Your task to perform on an android device: turn on sleep mode Image 0: 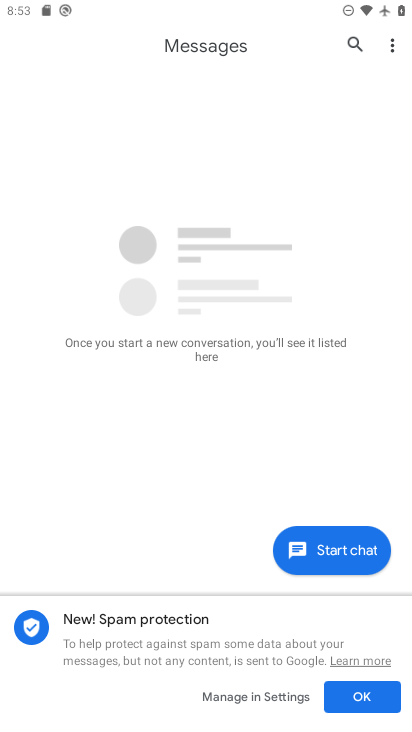
Step 0: press home button
Your task to perform on an android device: turn on sleep mode Image 1: 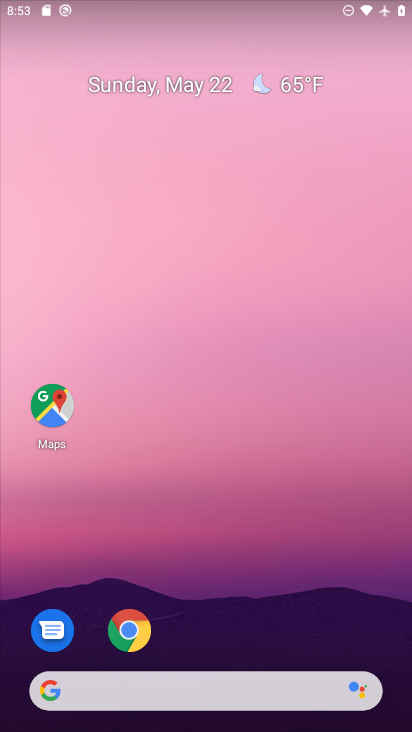
Step 1: drag from (180, 693) to (336, 111)
Your task to perform on an android device: turn on sleep mode Image 2: 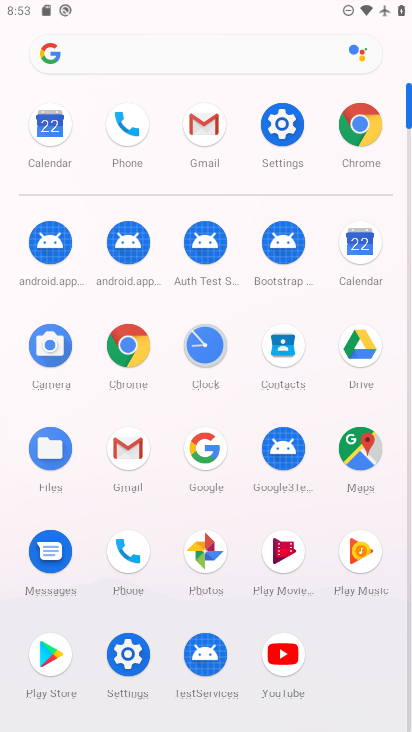
Step 2: click (288, 135)
Your task to perform on an android device: turn on sleep mode Image 3: 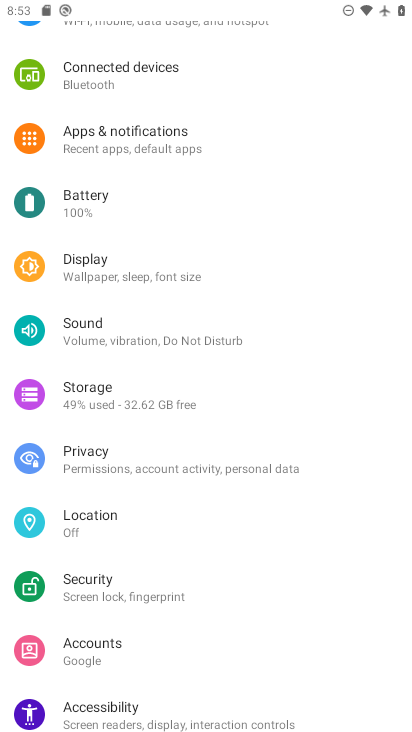
Step 3: click (154, 269)
Your task to perform on an android device: turn on sleep mode Image 4: 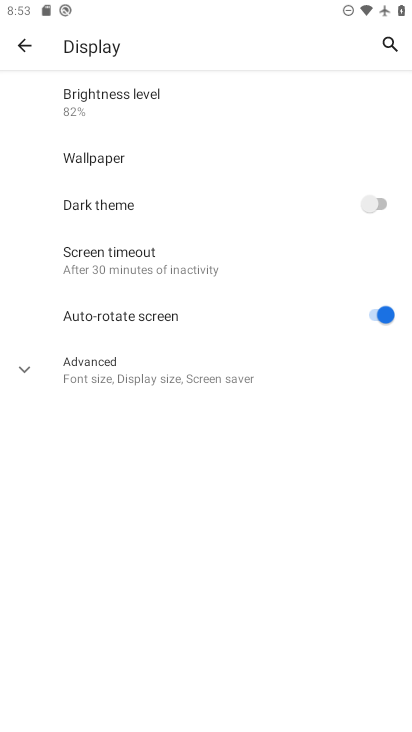
Step 4: task complete